Your task to perform on an android device: Clear the cart on ebay. Add "apple airpods" to the cart on ebay, then select checkout. Image 0: 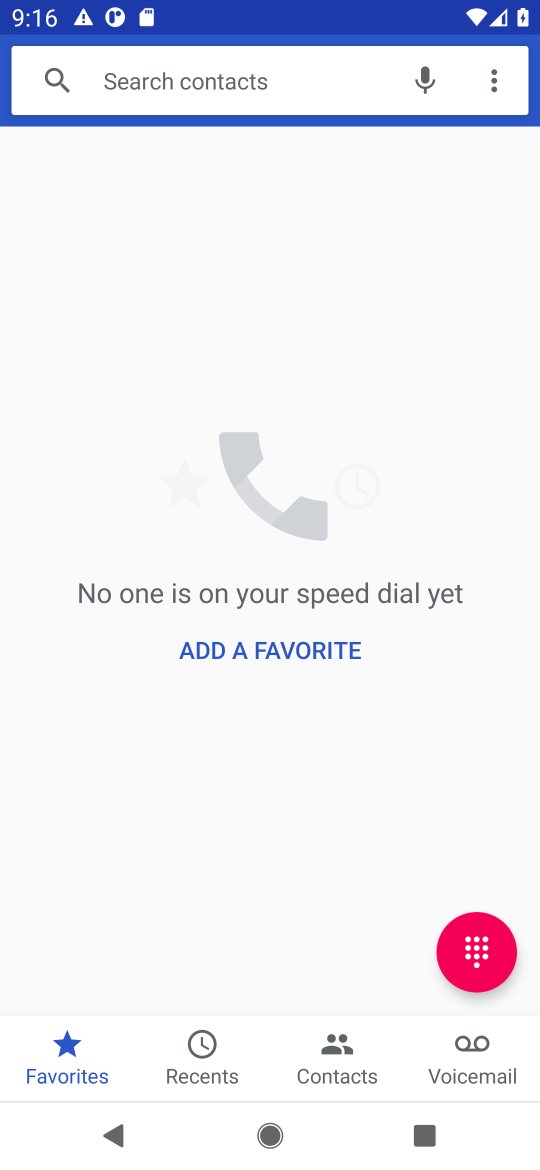
Step 0: press home button
Your task to perform on an android device: Clear the cart on ebay. Add "apple airpods" to the cart on ebay, then select checkout. Image 1: 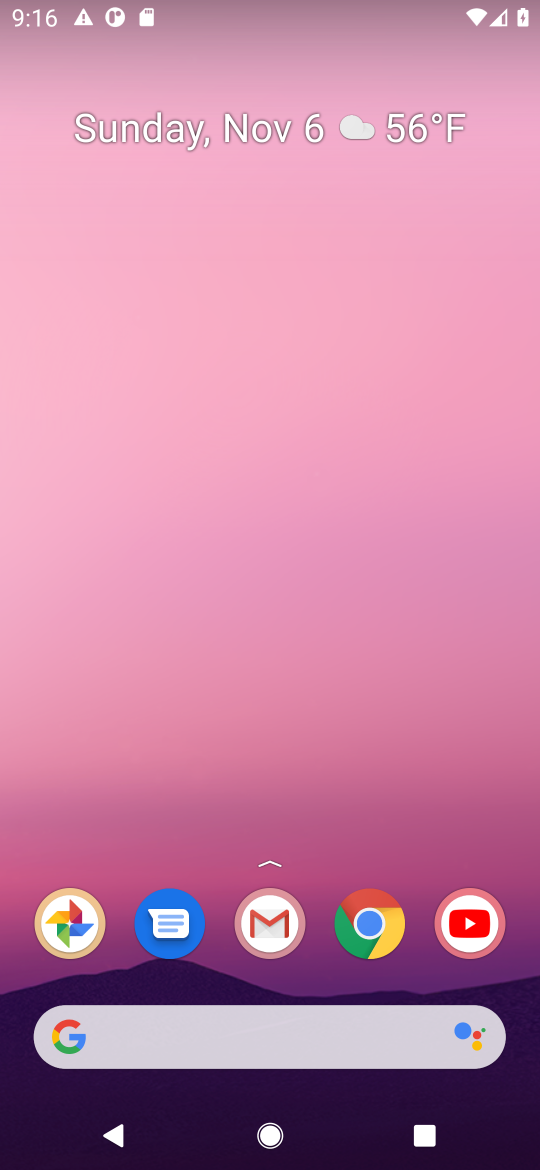
Step 1: click (377, 923)
Your task to perform on an android device: Clear the cart on ebay. Add "apple airpods" to the cart on ebay, then select checkout. Image 2: 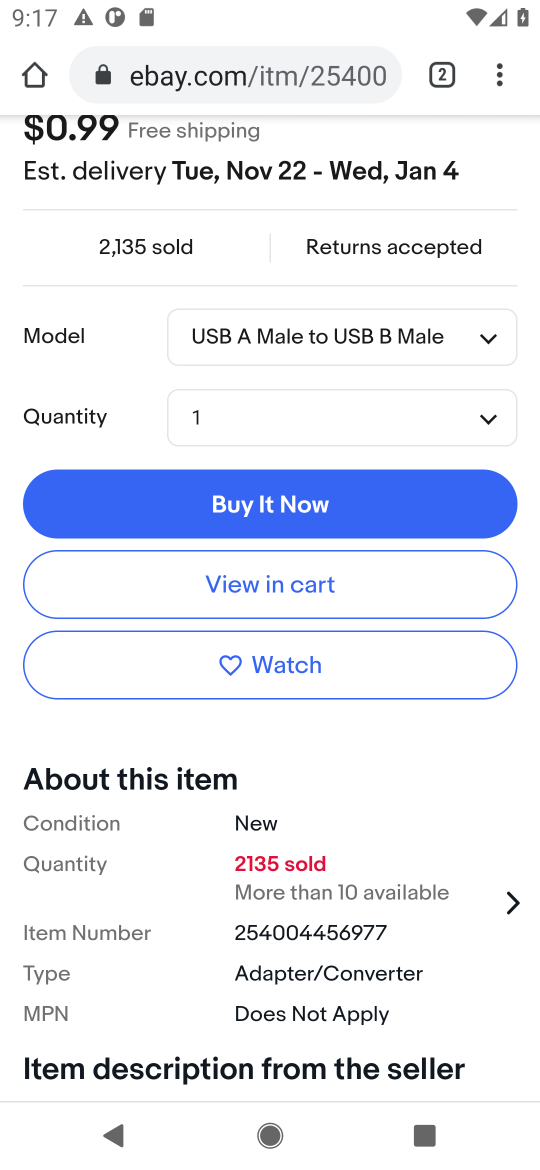
Step 2: press back button
Your task to perform on an android device: Clear the cart on ebay. Add "apple airpods" to the cart on ebay, then select checkout. Image 3: 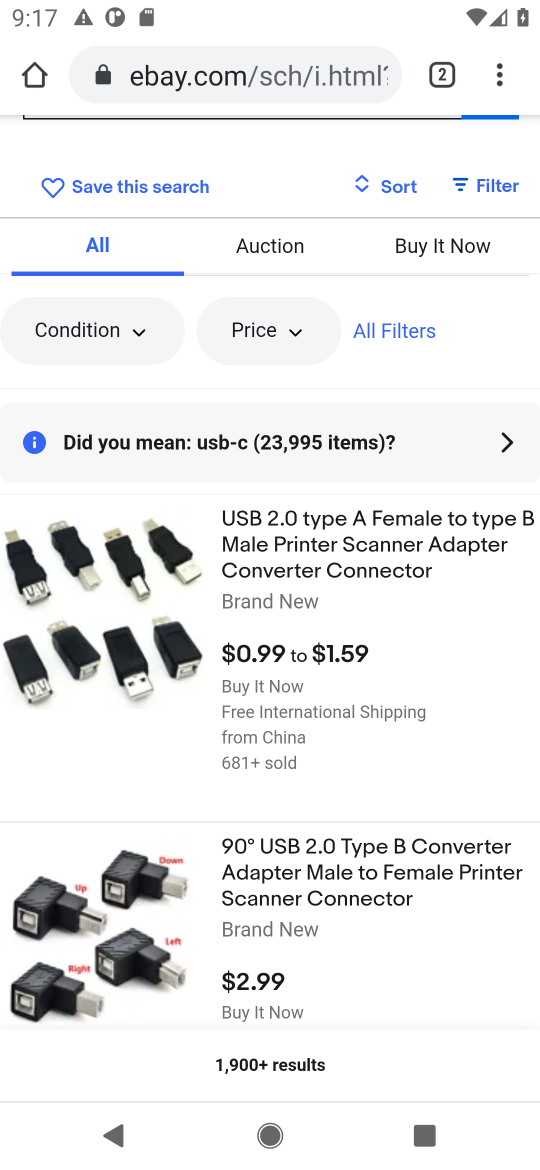
Step 3: drag from (458, 209) to (464, 810)
Your task to perform on an android device: Clear the cart on ebay. Add "apple airpods" to the cart on ebay, then select checkout. Image 4: 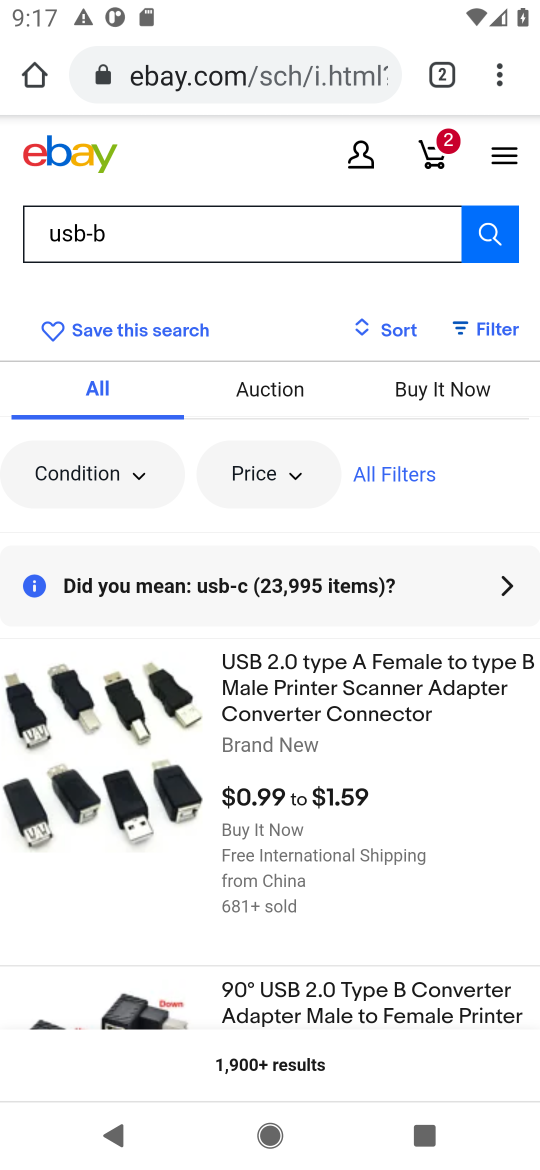
Step 4: click (438, 147)
Your task to perform on an android device: Clear the cart on ebay. Add "apple airpods" to the cart on ebay, then select checkout. Image 5: 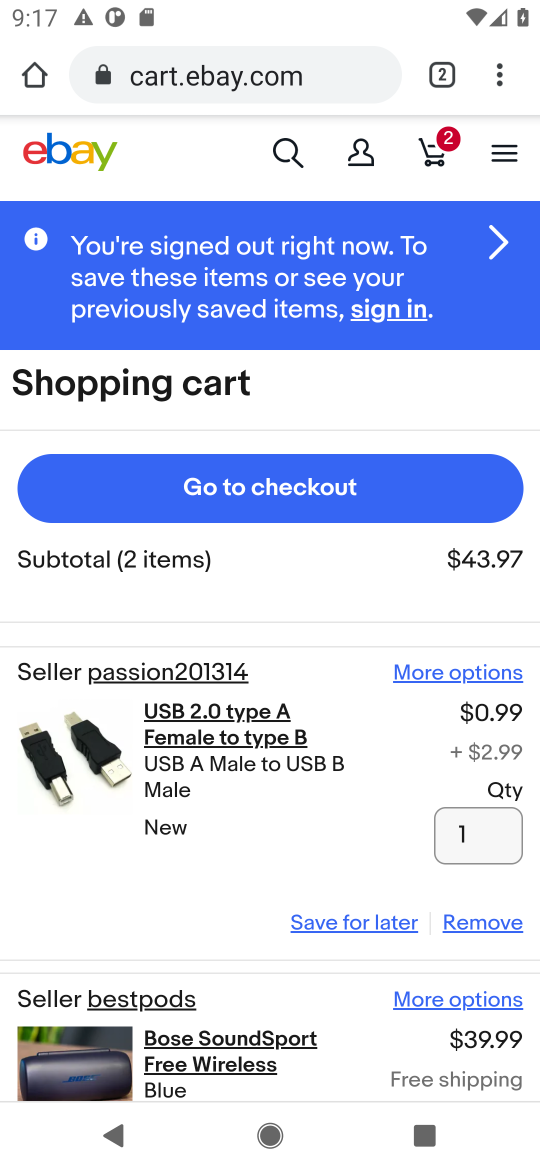
Step 5: click (472, 921)
Your task to perform on an android device: Clear the cart on ebay. Add "apple airpods" to the cart on ebay, then select checkout. Image 6: 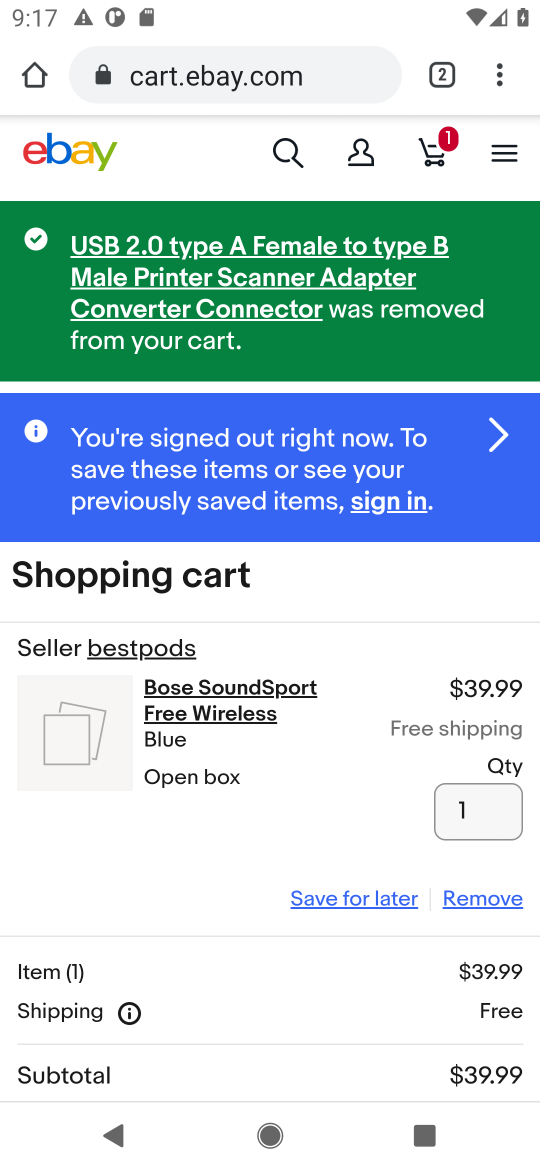
Step 6: click (473, 905)
Your task to perform on an android device: Clear the cart on ebay. Add "apple airpods" to the cart on ebay, then select checkout. Image 7: 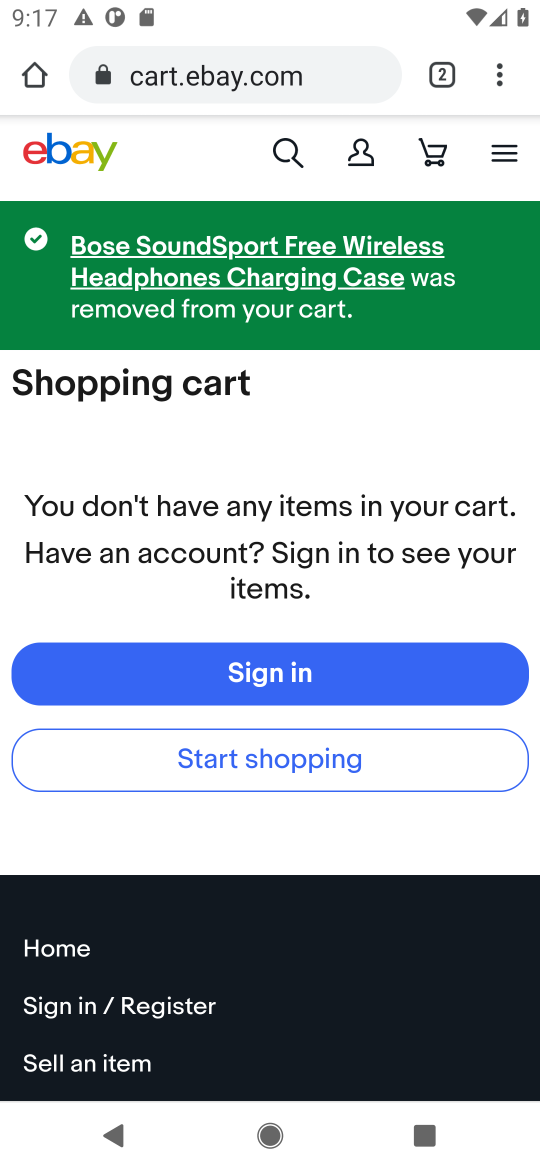
Step 7: click (291, 149)
Your task to perform on an android device: Clear the cart on ebay. Add "apple airpods" to the cart on ebay, then select checkout. Image 8: 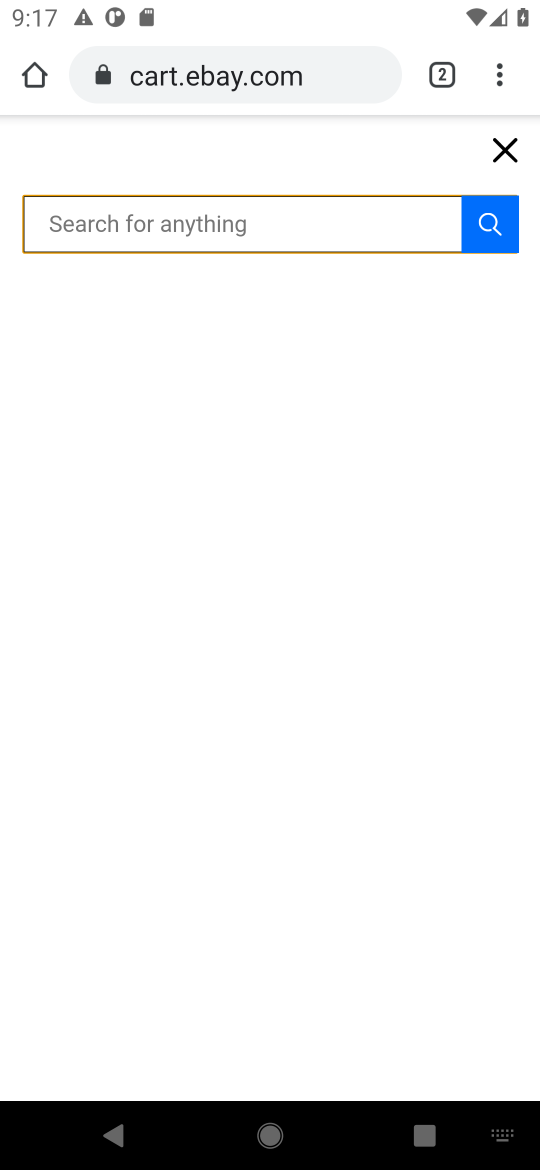
Step 8: type "apple airpods"
Your task to perform on an android device: Clear the cart on ebay. Add "apple airpods" to the cart on ebay, then select checkout. Image 9: 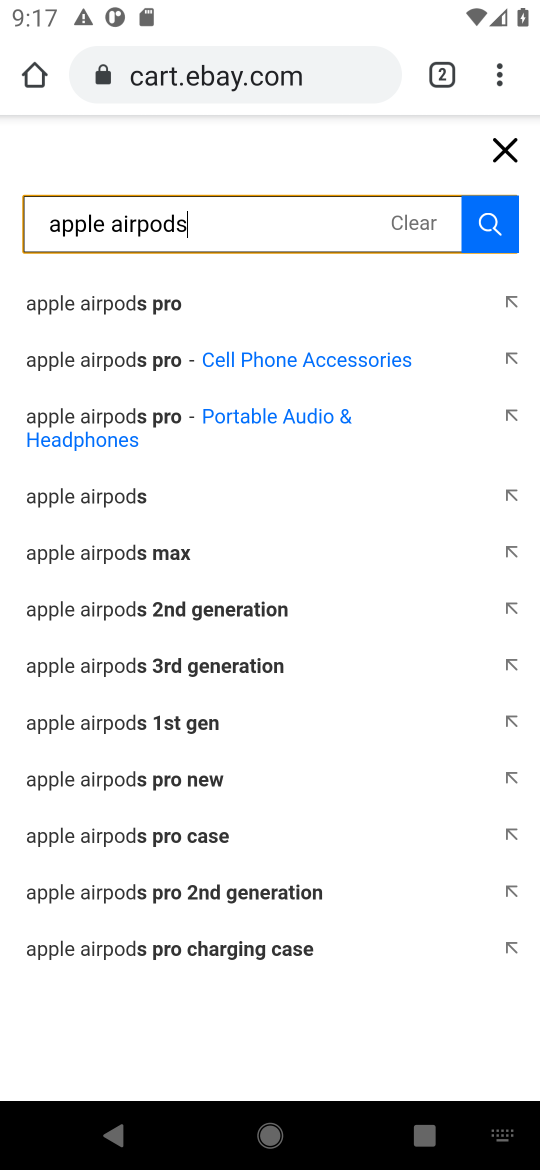
Step 9: click (483, 218)
Your task to perform on an android device: Clear the cart on ebay. Add "apple airpods" to the cart on ebay, then select checkout. Image 10: 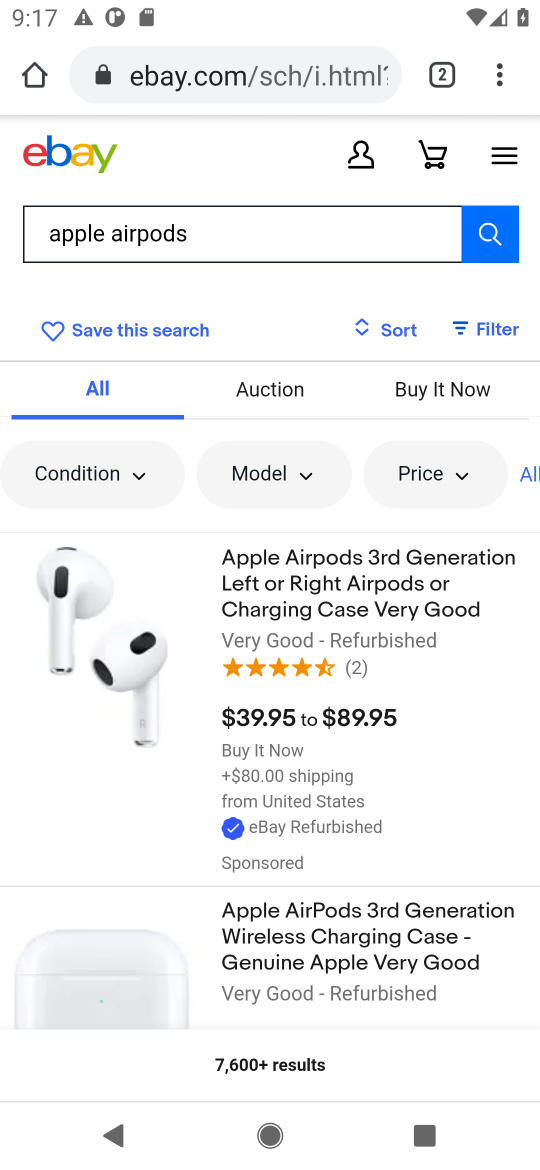
Step 10: click (185, 674)
Your task to perform on an android device: Clear the cart on ebay. Add "apple airpods" to the cart on ebay, then select checkout. Image 11: 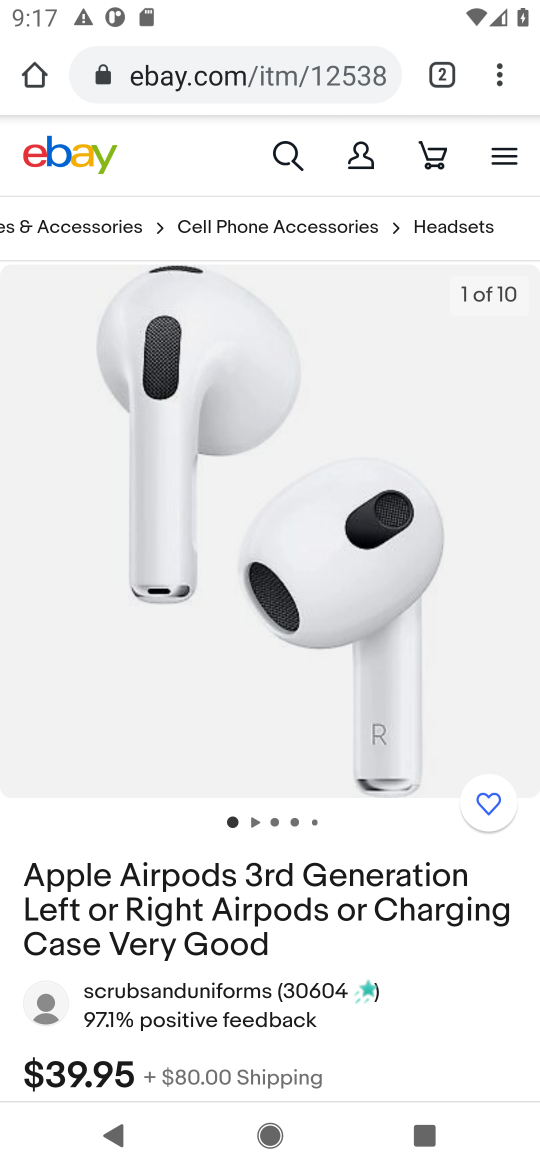
Step 11: drag from (351, 986) to (313, 440)
Your task to perform on an android device: Clear the cart on ebay. Add "apple airpods" to the cart on ebay, then select checkout. Image 12: 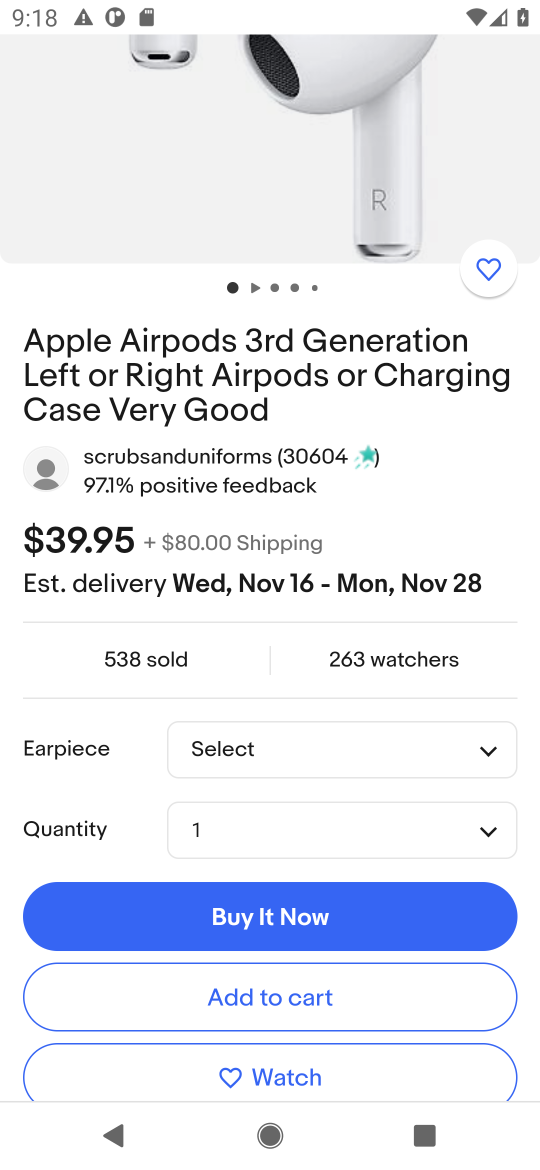
Step 12: click (271, 987)
Your task to perform on an android device: Clear the cart on ebay. Add "apple airpods" to the cart on ebay, then select checkout. Image 13: 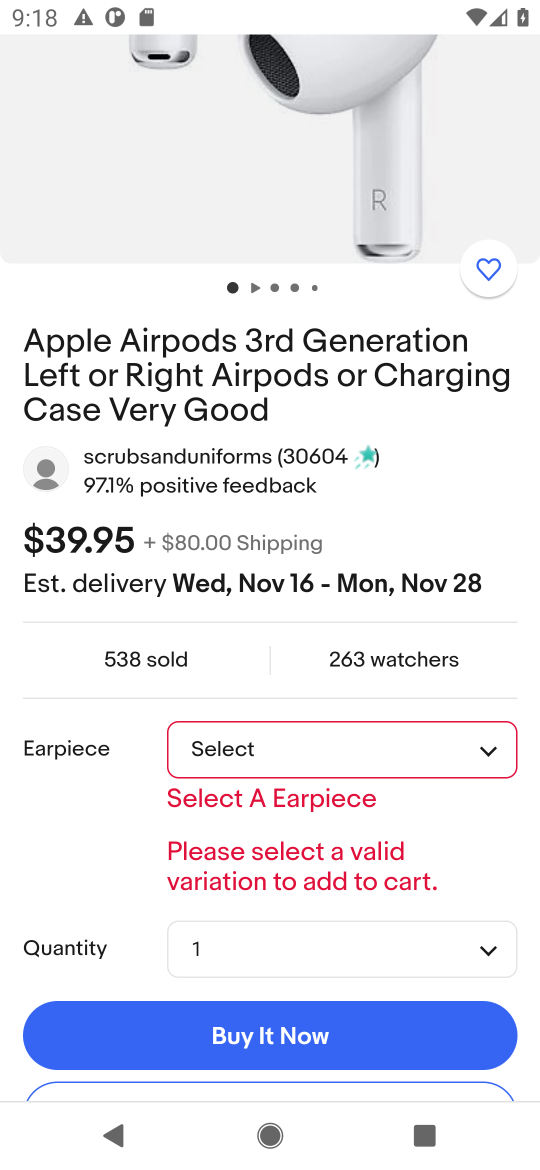
Step 13: click (484, 738)
Your task to perform on an android device: Clear the cart on ebay. Add "apple airpods" to the cart on ebay, then select checkout. Image 14: 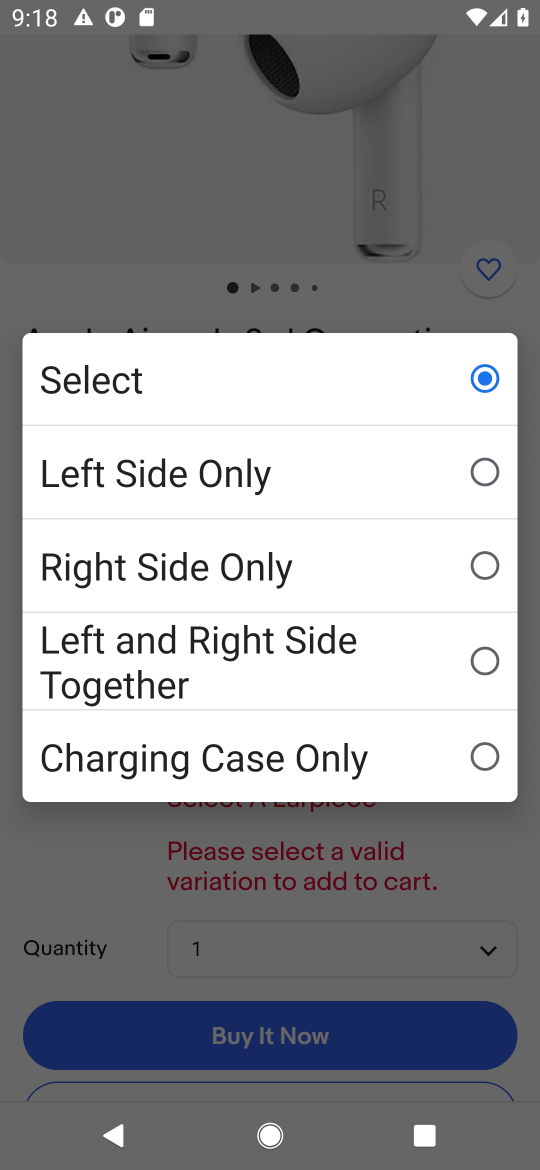
Step 14: click (160, 494)
Your task to perform on an android device: Clear the cart on ebay. Add "apple airpods" to the cart on ebay, then select checkout. Image 15: 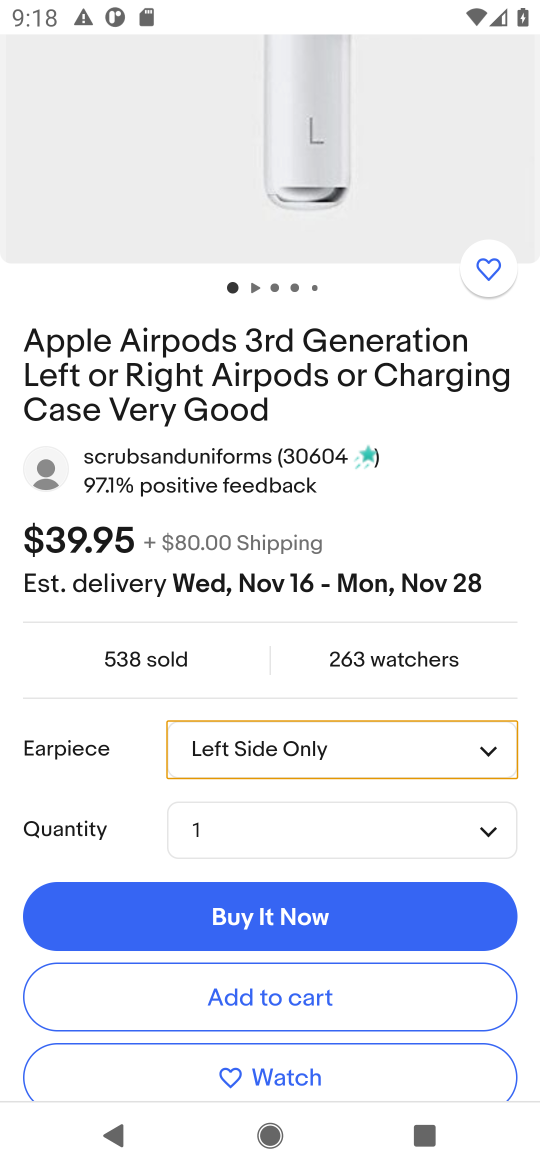
Step 15: click (298, 998)
Your task to perform on an android device: Clear the cart on ebay. Add "apple airpods" to the cart on ebay, then select checkout. Image 16: 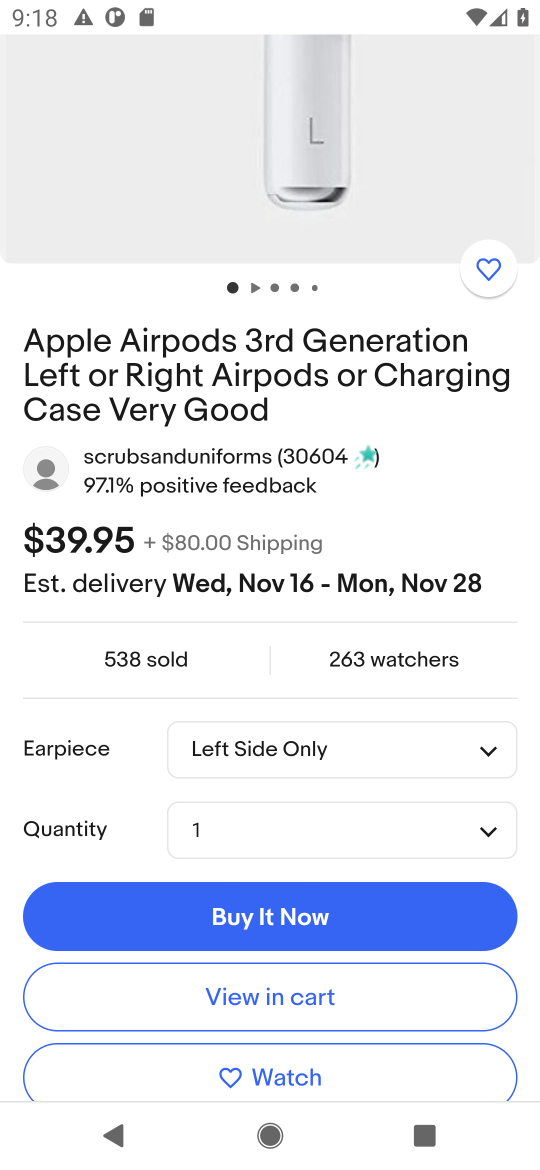
Step 16: click (298, 998)
Your task to perform on an android device: Clear the cart on ebay. Add "apple airpods" to the cart on ebay, then select checkout. Image 17: 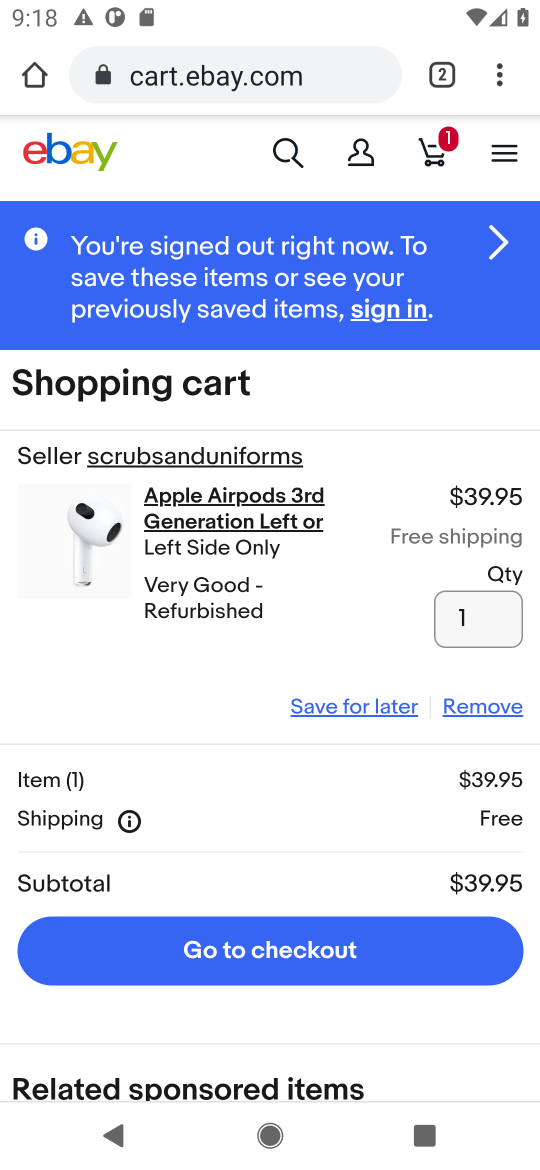
Step 17: click (263, 947)
Your task to perform on an android device: Clear the cart on ebay. Add "apple airpods" to the cart on ebay, then select checkout. Image 18: 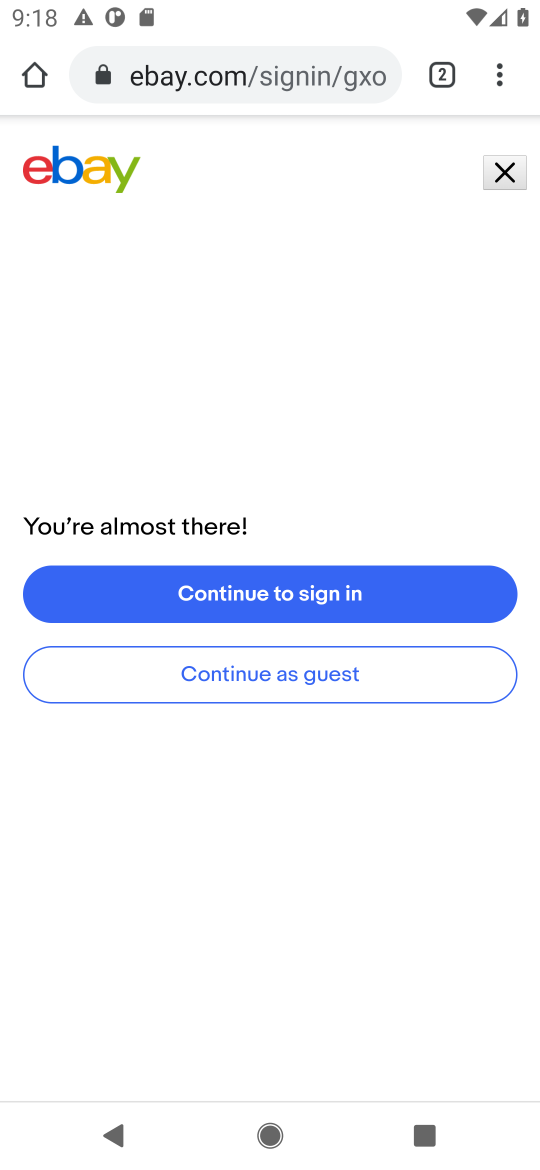
Step 18: task complete